Your task to perform on an android device: Go to accessibility settings Image 0: 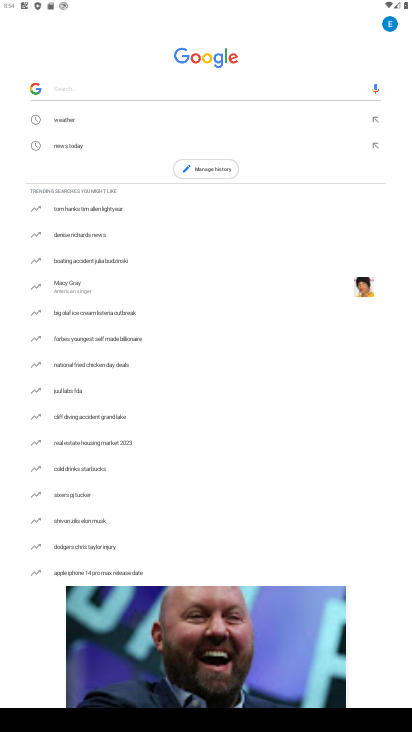
Step 0: press home button
Your task to perform on an android device: Go to accessibility settings Image 1: 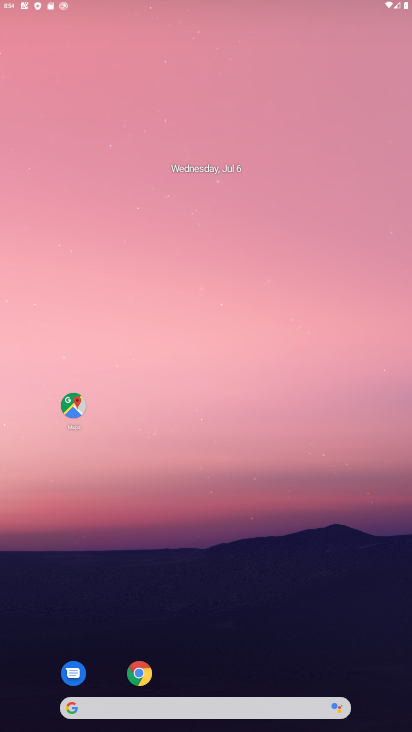
Step 1: drag from (213, 595) to (206, 185)
Your task to perform on an android device: Go to accessibility settings Image 2: 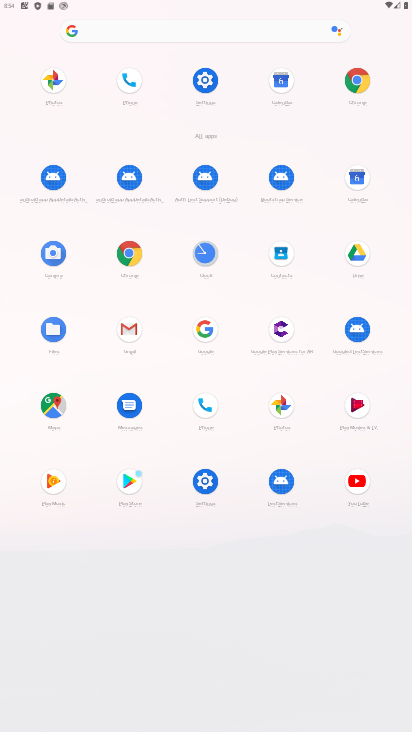
Step 2: click (204, 69)
Your task to perform on an android device: Go to accessibility settings Image 3: 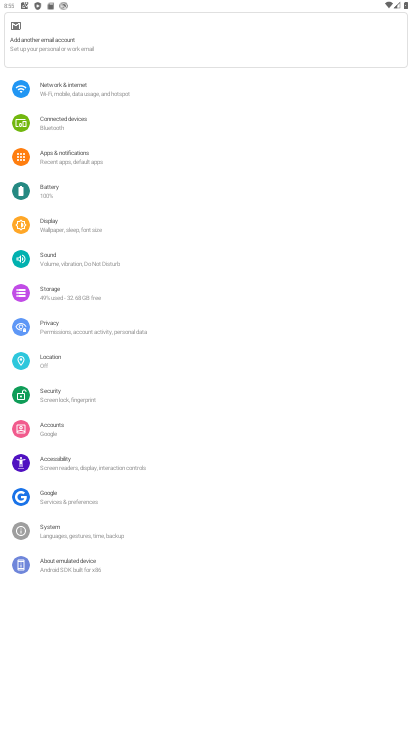
Step 3: drag from (204, 463) to (129, 407)
Your task to perform on an android device: Go to accessibility settings Image 4: 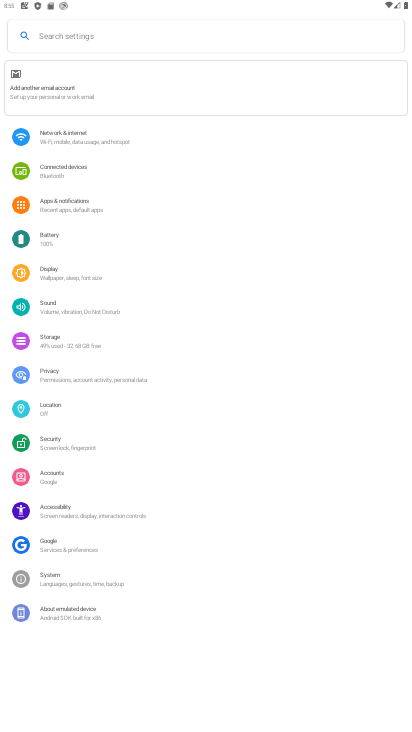
Step 4: click (93, 506)
Your task to perform on an android device: Go to accessibility settings Image 5: 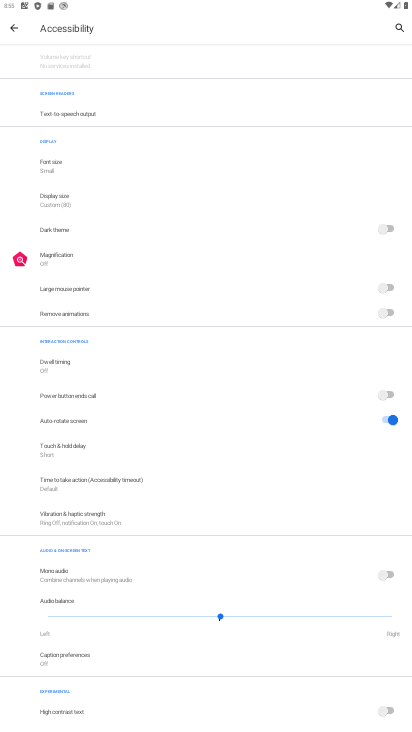
Step 5: task complete